Your task to perform on an android device: Open accessibility settings Image 0: 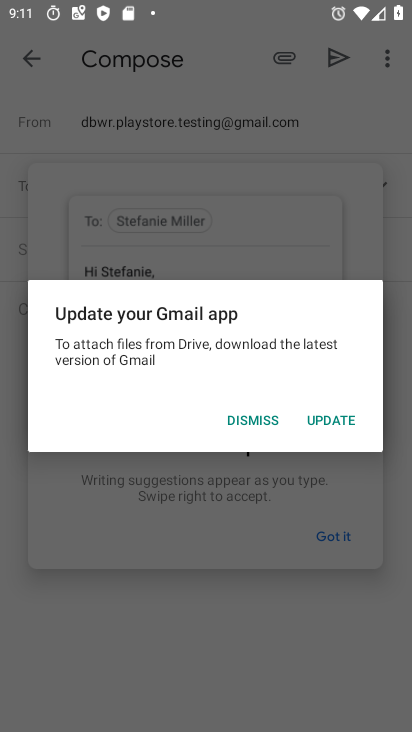
Step 0: press home button
Your task to perform on an android device: Open accessibility settings Image 1: 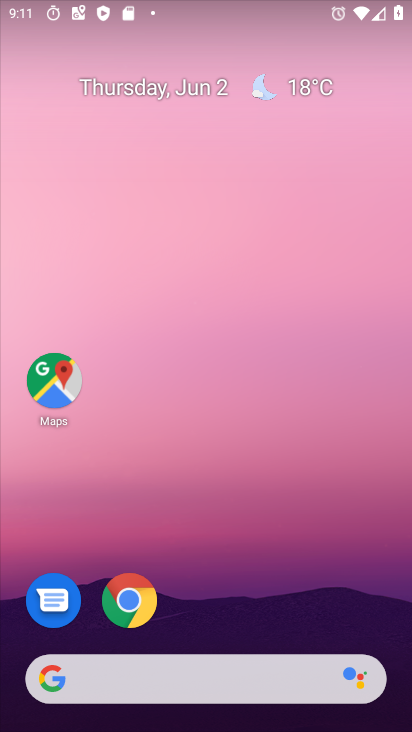
Step 1: drag from (325, 589) to (356, 174)
Your task to perform on an android device: Open accessibility settings Image 2: 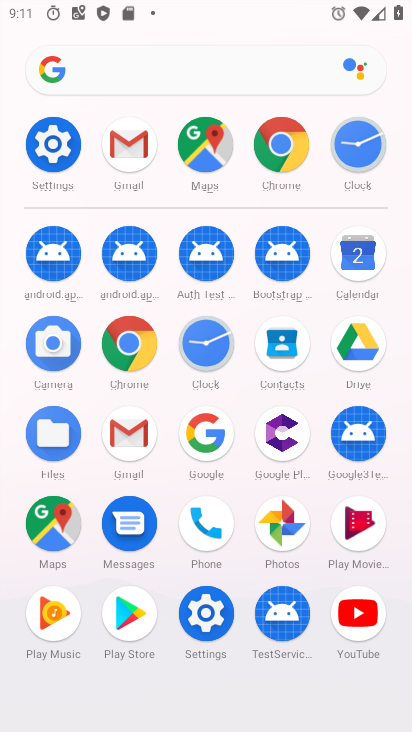
Step 2: click (210, 622)
Your task to perform on an android device: Open accessibility settings Image 3: 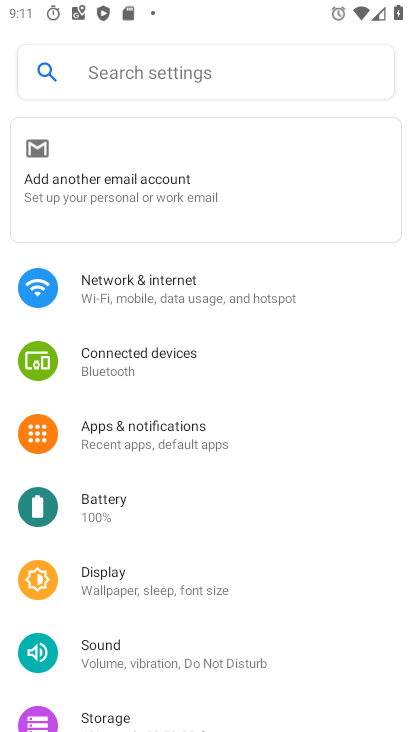
Step 3: drag from (358, 529) to (370, 407)
Your task to perform on an android device: Open accessibility settings Image 4: 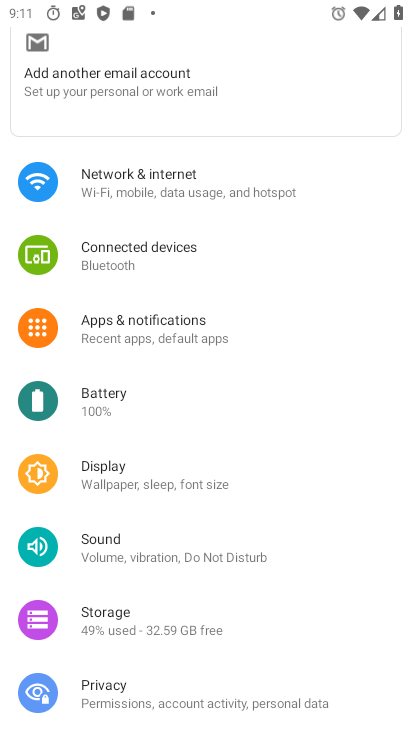
Step 4: drag from (380, 458) to (385, 354)
Your task to perform on an android device: Open accessibility settings Image 5: 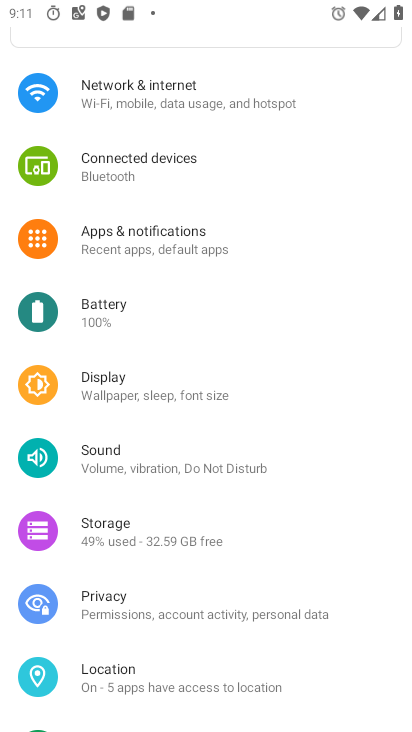
Step 5: drag from (381, 495) to (379, 432)
Your task to perform on an android device: Open accessibility settings Image 6: 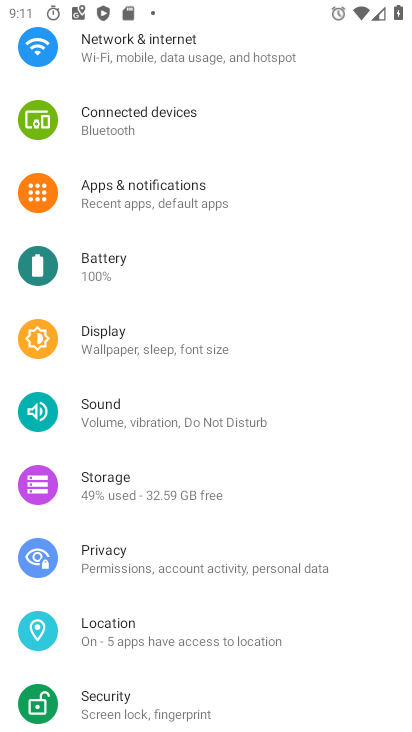
Step 6: drag from (371, 549) to (370, 433)
Your task to perform on an android device: Open accessibility settings Image 7: 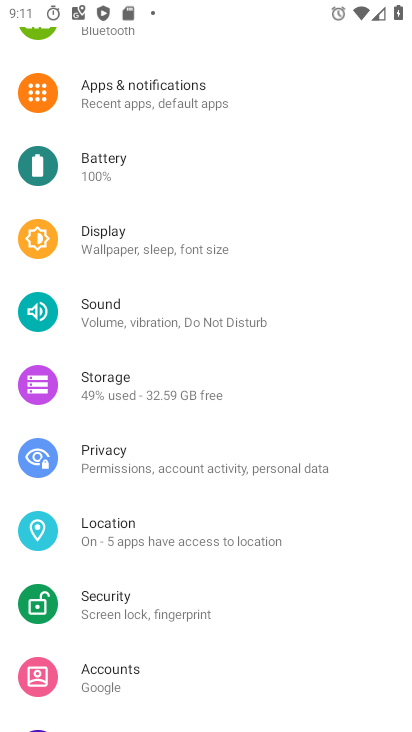
Step 7: drag from (346, 492) to (353, 391)
Your task to perform on an android device: Open accessibility settings Image 8: 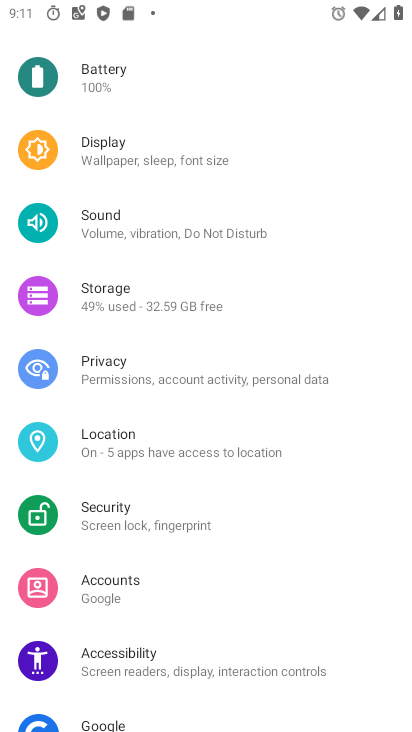
Step 8: drag from (352, 474) to (361, 408)
Your task to perform on an android device: Open accessibility settings Image 9: 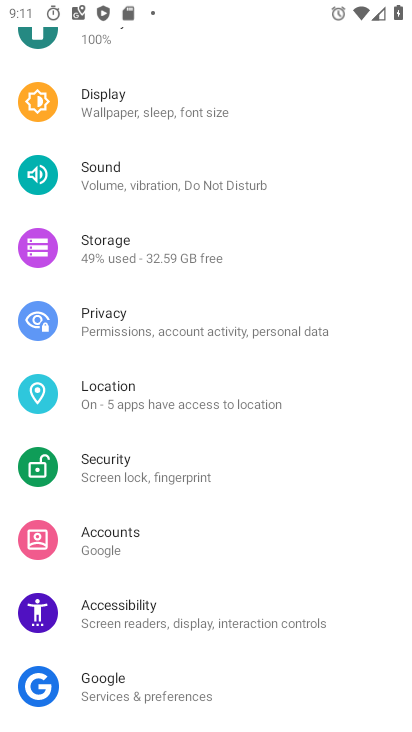
Step 9: drag from (368, 538) to (372, 429)
Your task to perform on an android device: Open accessibility settings Image 10: 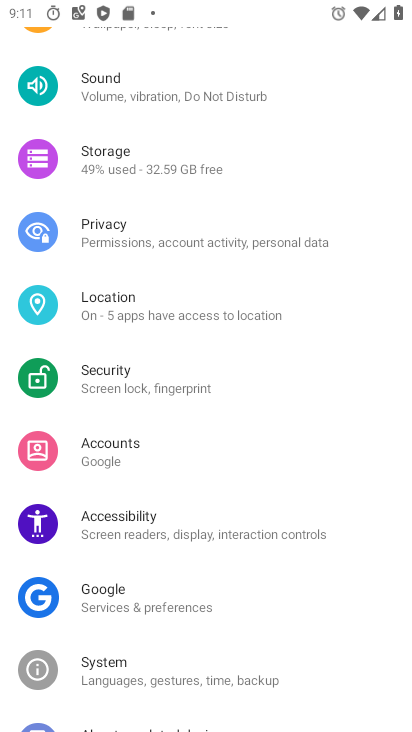
Step 10: drag from (366, 552) to (366, 447)
Your task to perform on an android device: Open accessibility settings Image 11: 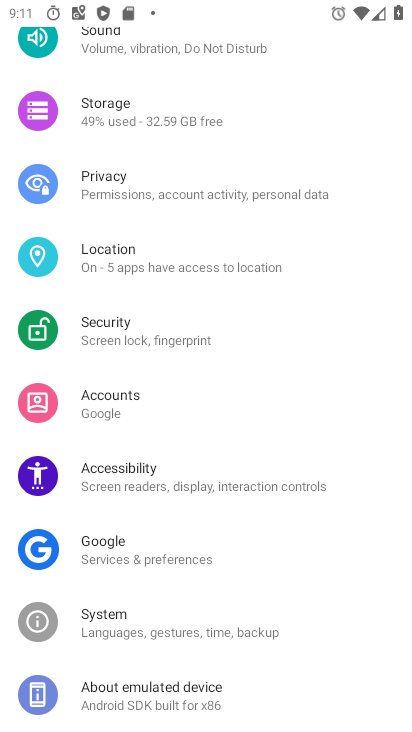
Step 11: drag from (363, 559) to (361, 334)
Your task to perform on an android device: Open accessibility settings Image 12: 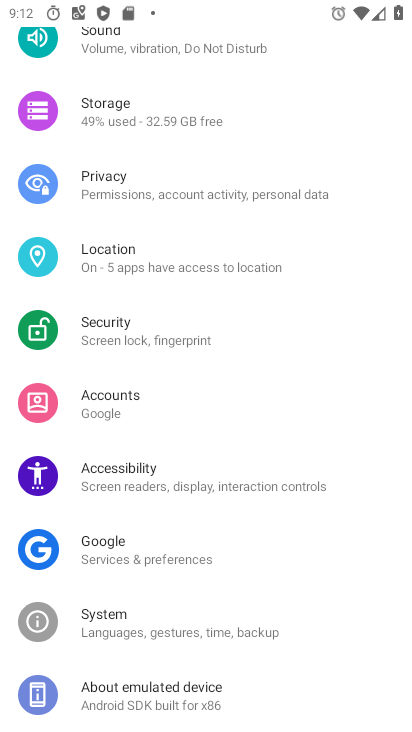
Step 12: click (311, 485)
Your task to perform on an android device: Open accessibility settings Image 13: 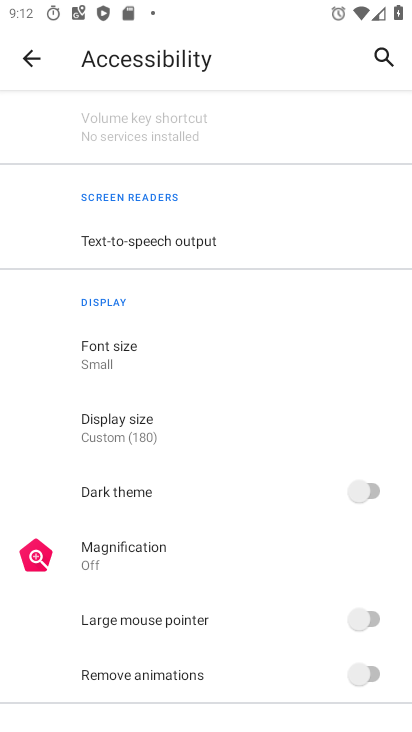
Step 13: task complete